Your task to perform on an android device: Turn off the flashlight Image 0: 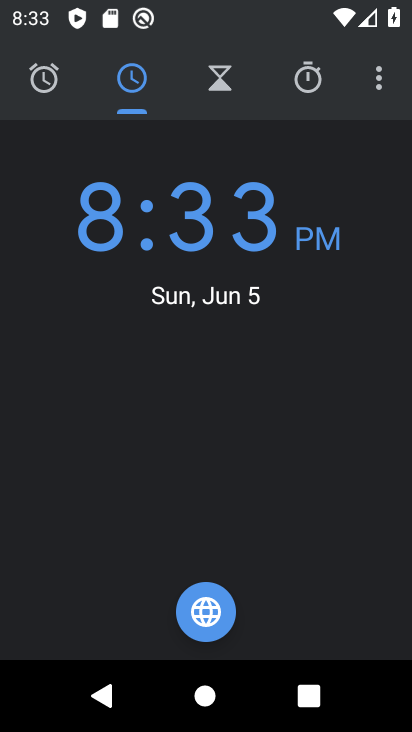
Step 0: press home button
Your task to perform on an android device: Turn off the flashlight Image 1: 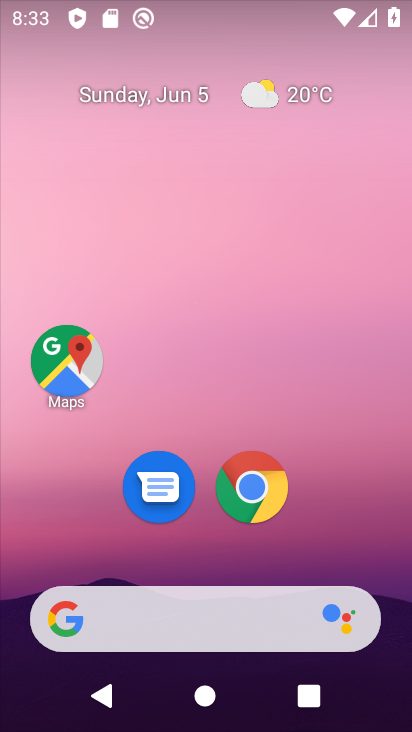
Step 1: task complete